Your task to perform on an android device: Open the calendar and show me this week's events Image 0: 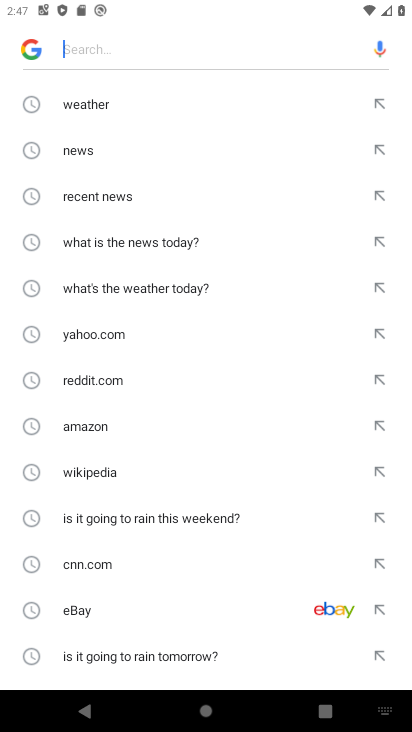
Step 0: press home button
Your task to perform on an android device: Open the calendar and show me this week's events Image 1: 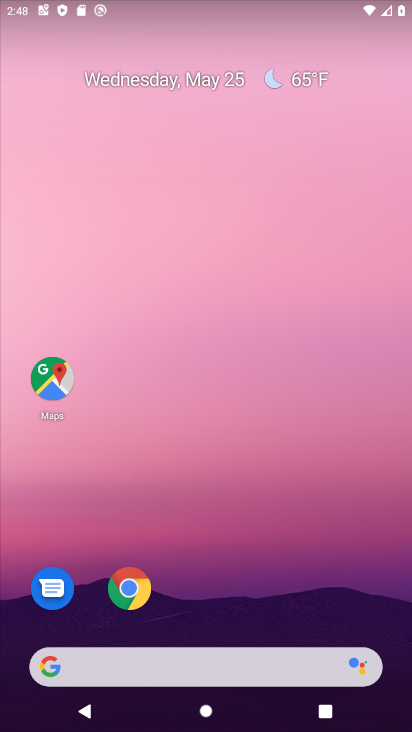
Step 1: drag from (223, 614) to (280, 174)
Your task to perform on an android device: Open the calendar and show me this week's events Image 2: 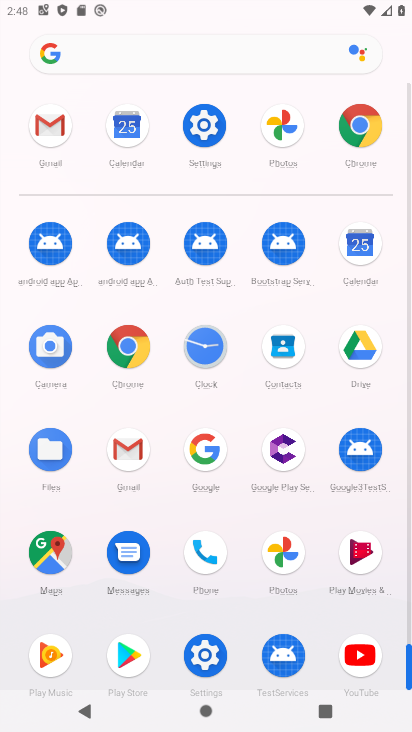
Step 2: click (362, 246)
Your task to perform on an android device: Open the calendar and show me this week's events Image 3: 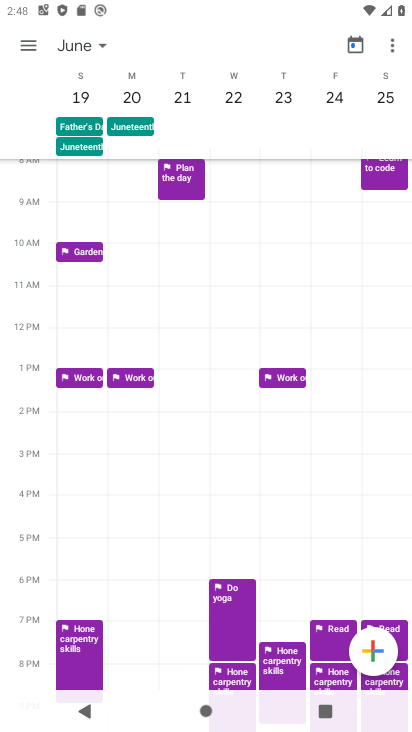
Step 3: click (92, 44)
Your task to perform on an android device: Open the calendar and show me this week's events Image 4: 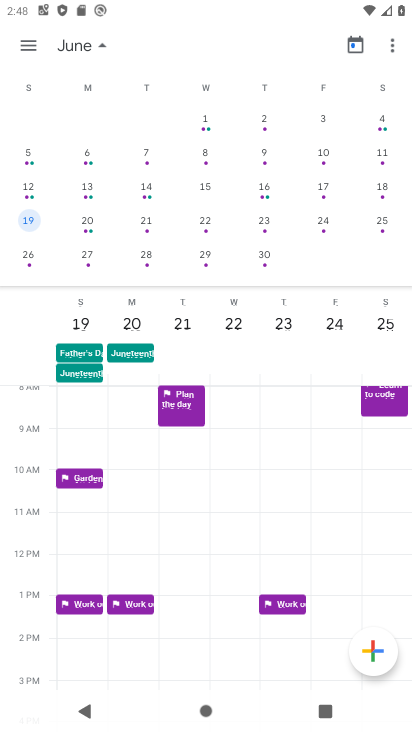
Step 4: drag from (66, 192) to (404, 200)
Your task to perform on an android device: Open the calendar and show me this week's events Image 5: 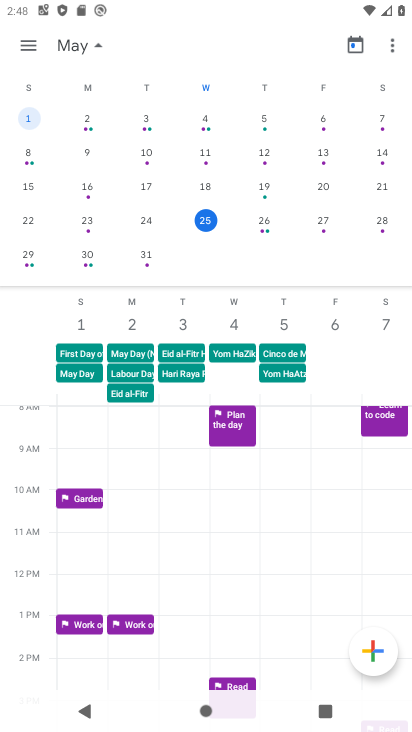
Step 5: click (150, 225)
Your task to perform on an android device: Open the calendar and show me this week's events Image 6: 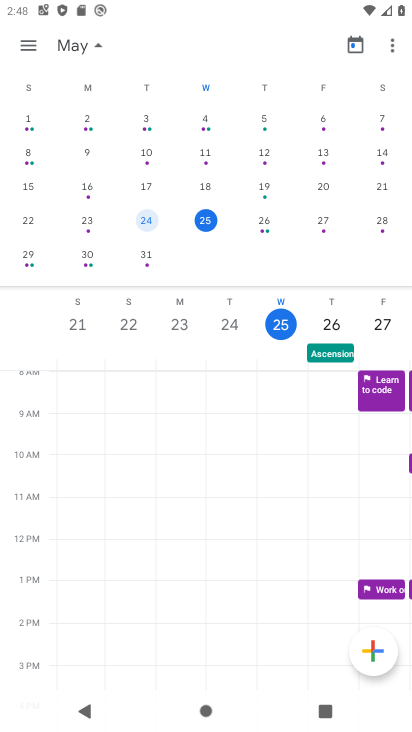
Step 6: click (90, 225)
Your task to perform on an android device: Open the calendar and show me this week's events Image 7: 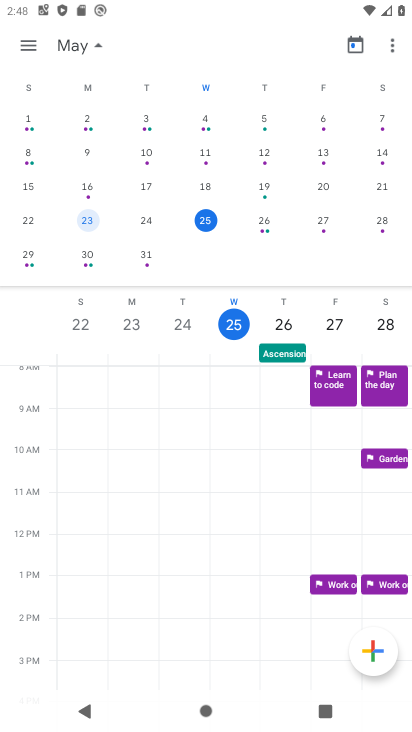
Step 7: click (256, 220)
Your task to perform on an android device: Open the calendar and show me this week's events Image 8: 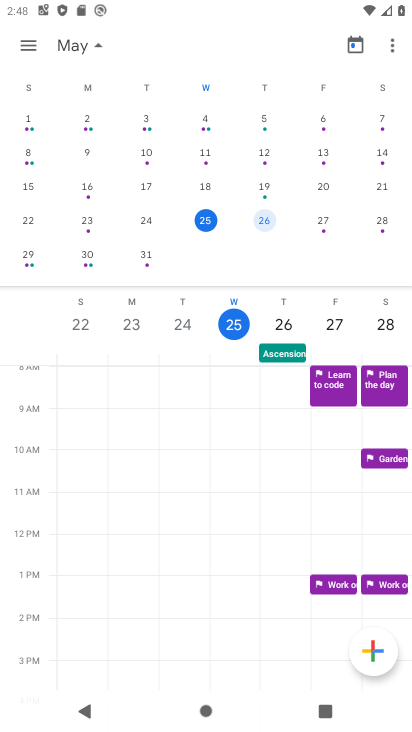
Step 8: click (320, 226)
Your task to perform on an android device: Open the calendar and show me this week's events Image 9: 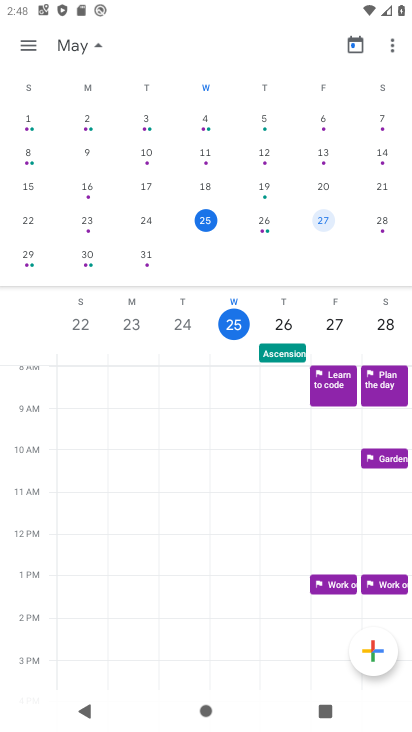
Step 9: click (378, 217)
Your task to perform on an android device: Open the calendar and show me this week's events Image 10: 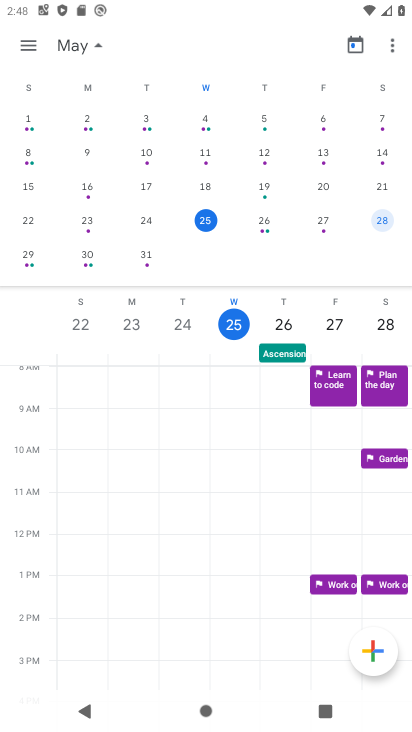
Step 10: task complete